Your task to perform on an android device: What's the weather? Image 0: 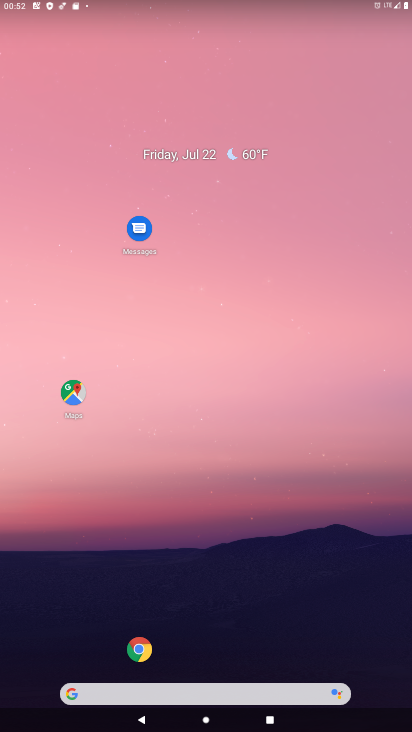
Step 0: click (123, 693)
Your task to perform on an android device: What's the weather? Image 1: 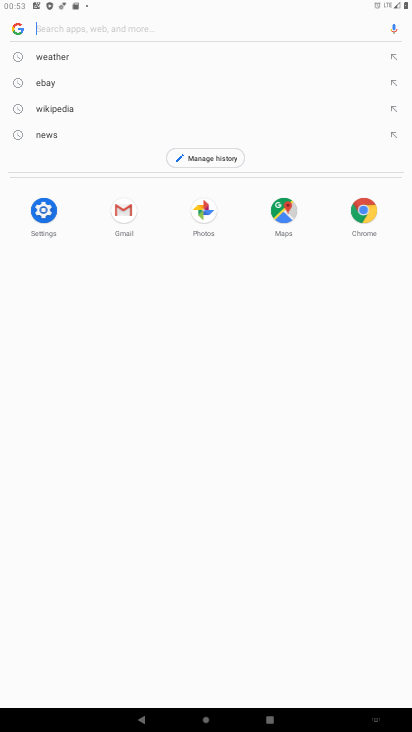
Step 1: type "What's the weather?"
Your task to perform on an android device: What's the weather? Image 2: 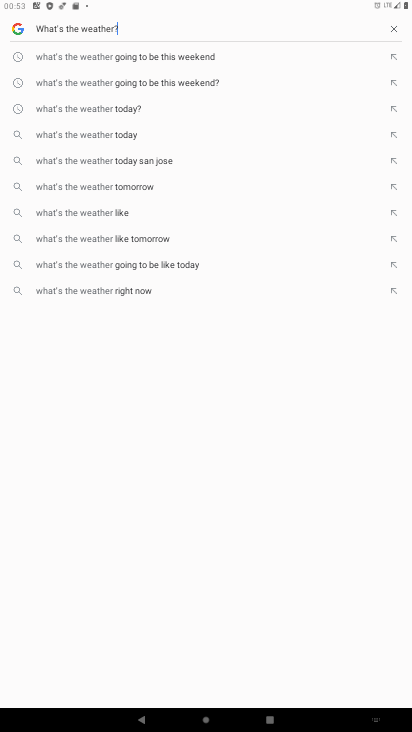
Step 2: type ""
Your task to perform on an android device: What's the weather? Image 3: 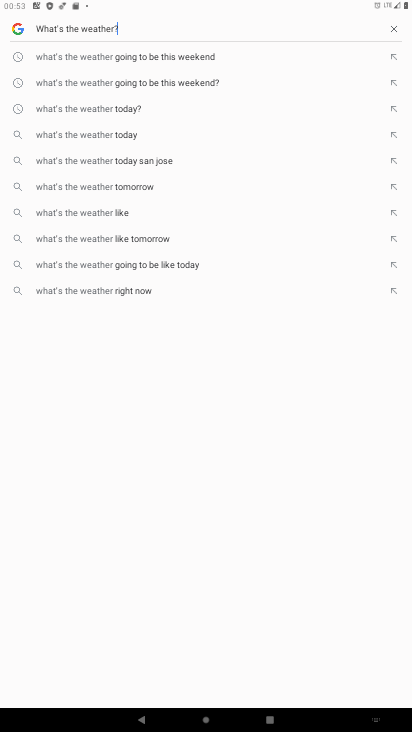
Step 3: type ""
Your task to perform on an android device: What's the weather? Image 4: 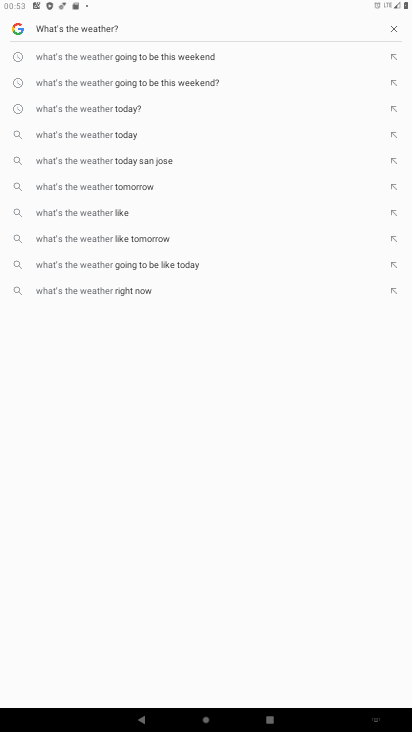
Step 4: type ""
Your task to perform on an android device: What's the weather? Image 5: 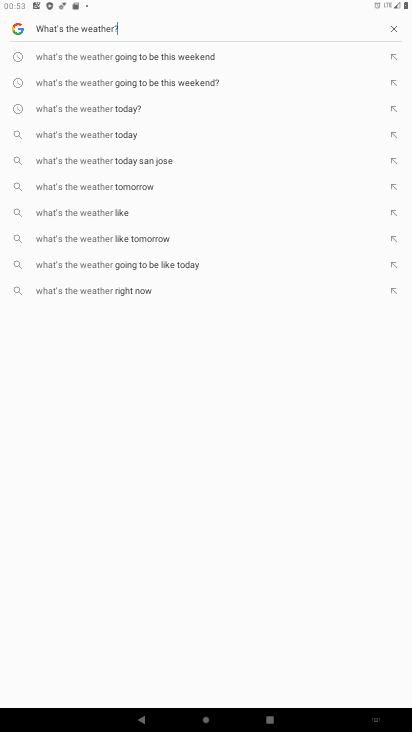
Step 5: task complete